Your task to perform on an android device: check data usage Image 0: 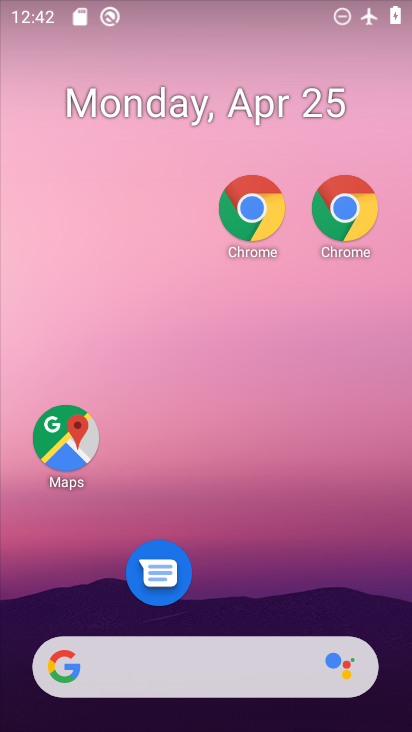
Step 0: drag from (160, 40) to (211, 17)
Your task to perform on an android device: check data usage Image 1: 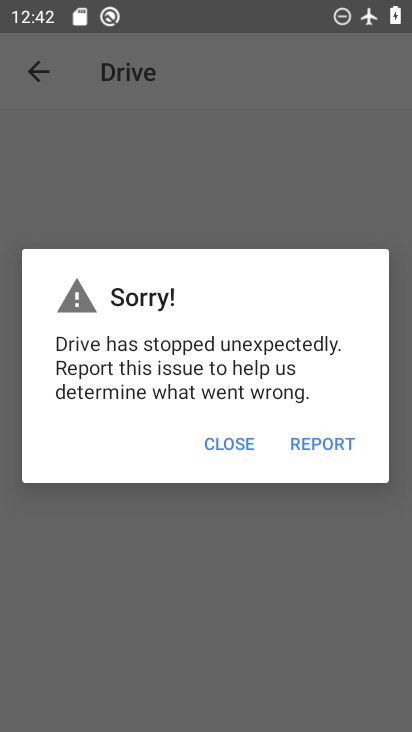
Step 1: click (219, 455)
Your task to perform on an android device: check data usage Image 2: 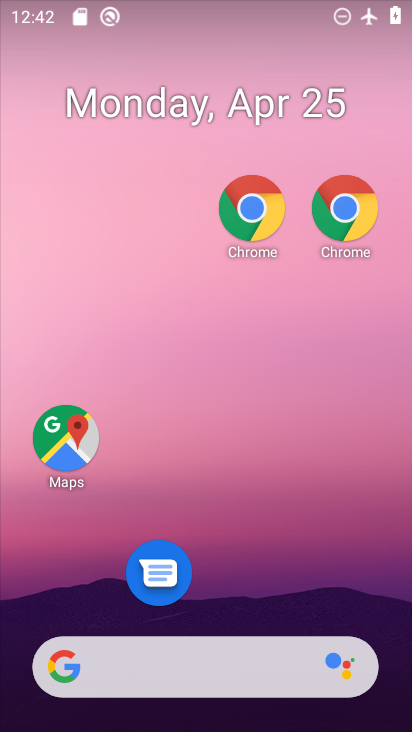
Step 2: drag from (200, 450) to (117, 0)
Your task to perform on an android device: check data usage Image 3: 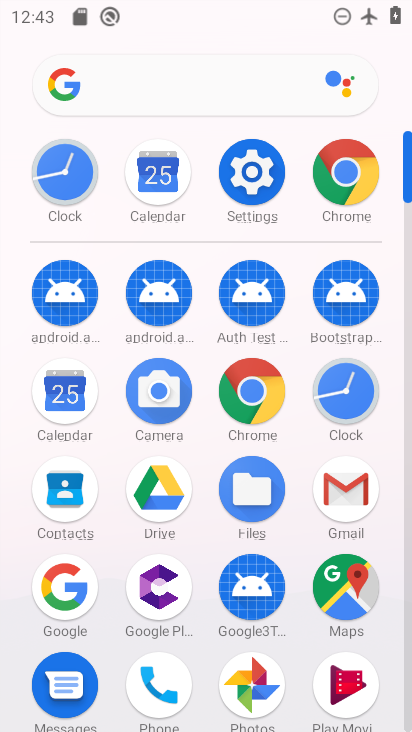
Step 3: click (249, 173)
Your task to perform on an android device: check data usage Image 4: 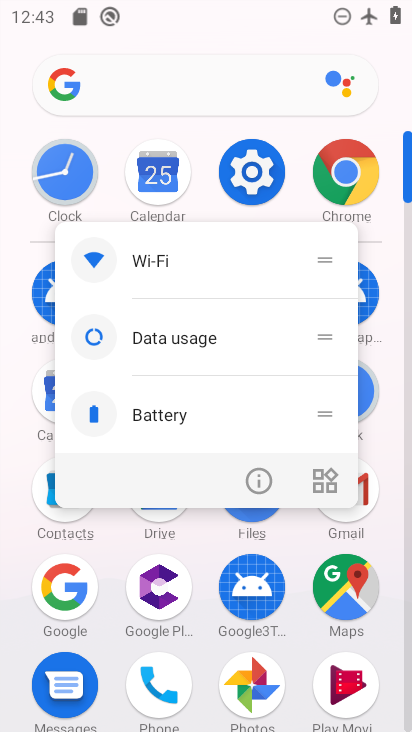
Step 4: click (249, 159)
Your task to perform on an android device: check data usage Image 5: 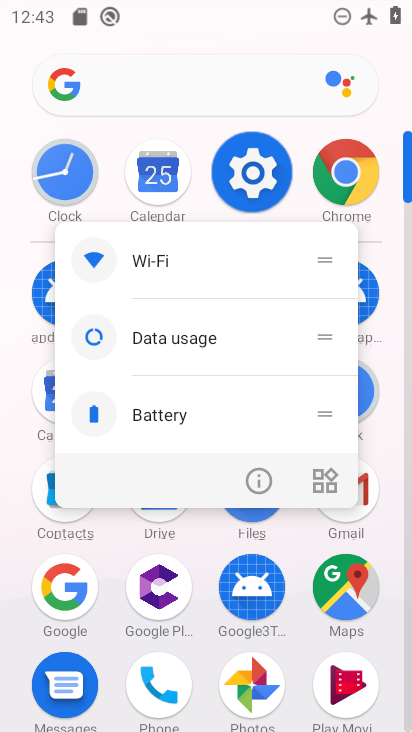
Step 5: click (249, 170)
Your task to perform on an android device: check data usage Image 6: 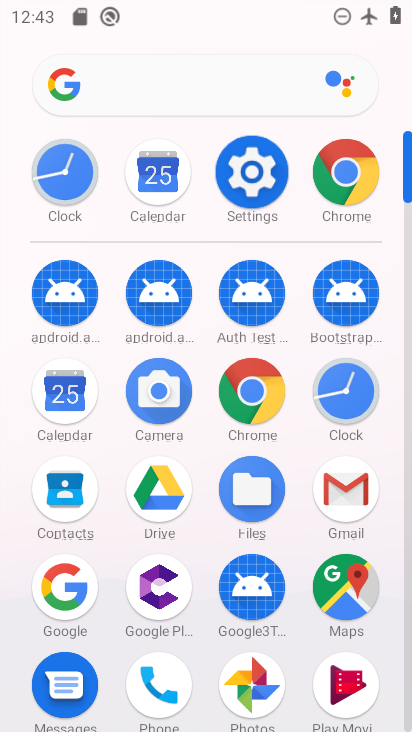
Step 6: click (247, 166)
Your task to perform on an android device: check data usage Image 7: 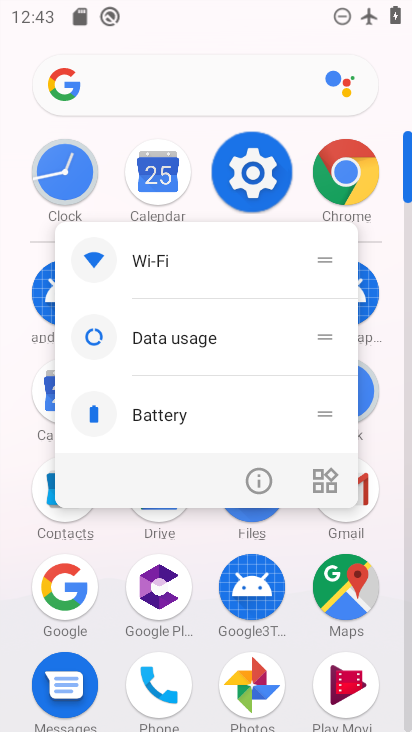
Step 7: click (245, 144)
Your task to perform on an android device: check data usage Image 8: 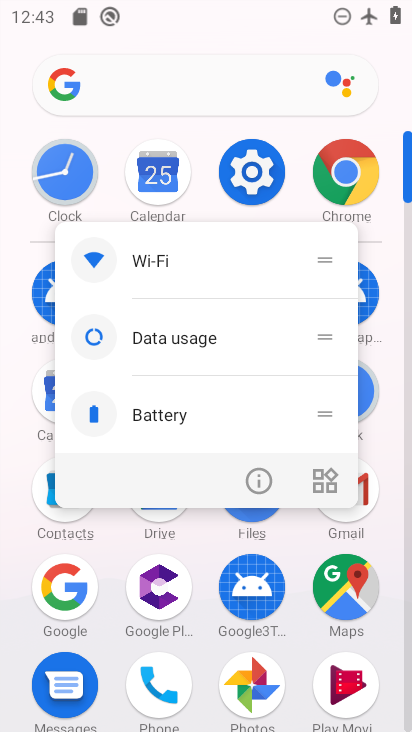
Step 8: click (245, 138)
Your task to perform on an android device: check data usage Image 9: 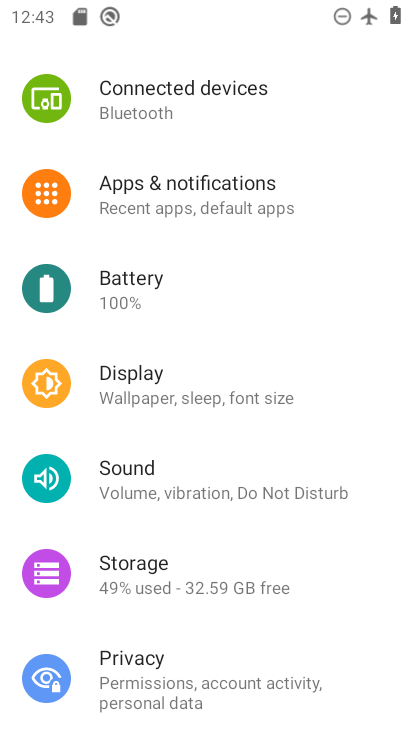
Step 9: drag from (187, 203) to (205, 609)
Your task to perform on an android device: check data usage Image 10: 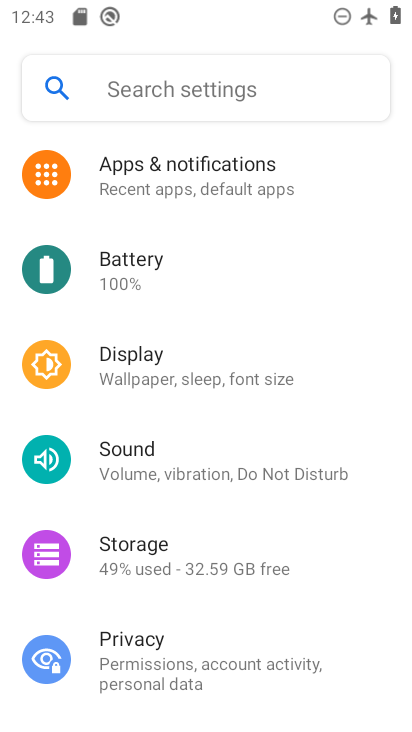
Step 10: drag from (210, 634) to (250, 694)
Your task to perform on an android device: check data usage Image 11: 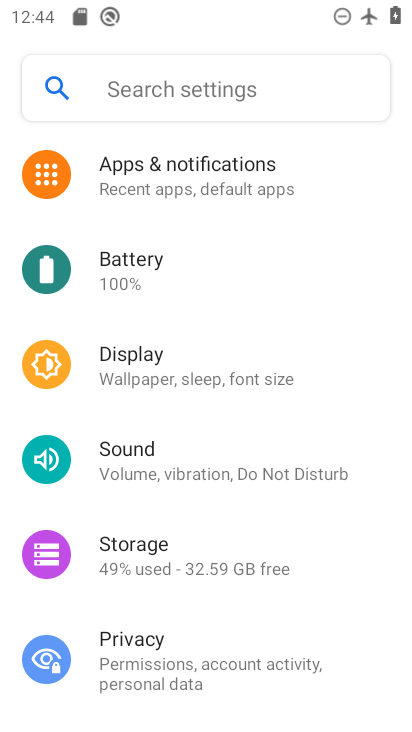
Step 11: drag from (159, 261) to (75, 510)
Your task to perform on an android device: check data usage Image 12: 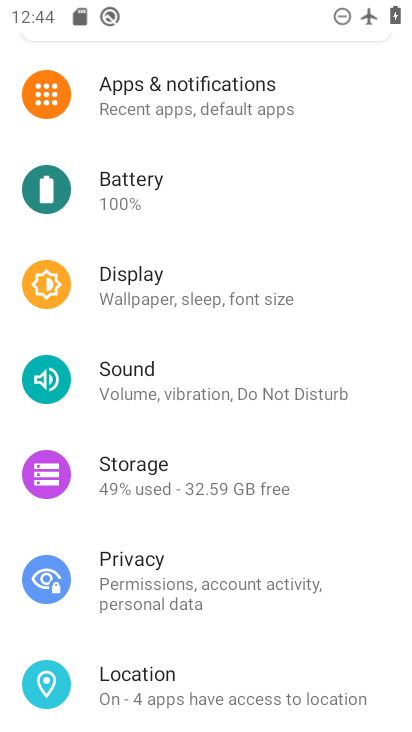
Step 12: drag from (177, 227) to (228, 613)
Your task to perform on an android device: check data usage Image 13: 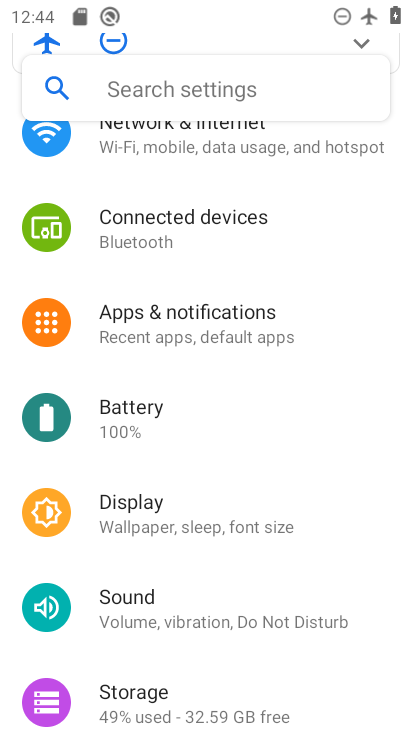
Step 13: click (185, 143)
Your task to perform on an android device: check data usage Image 14: 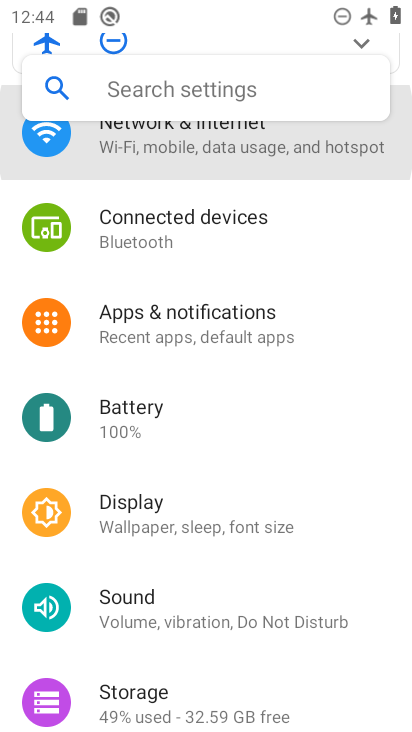
Step 14: click (186, 138)
Your task to perform on an android device: check data usage Image 15: 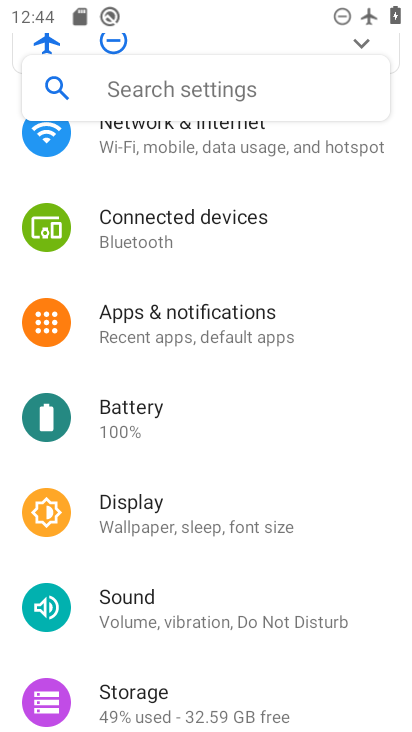
Step 15: click (186, 138)
Your task to perform on an android device: check data usage Image 16: 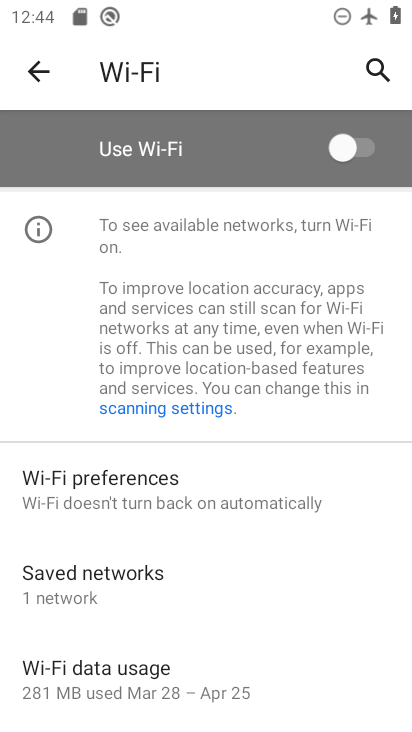
Step 16: click (35, 73)
Your task to perform on an android device: check data usage Image 17: 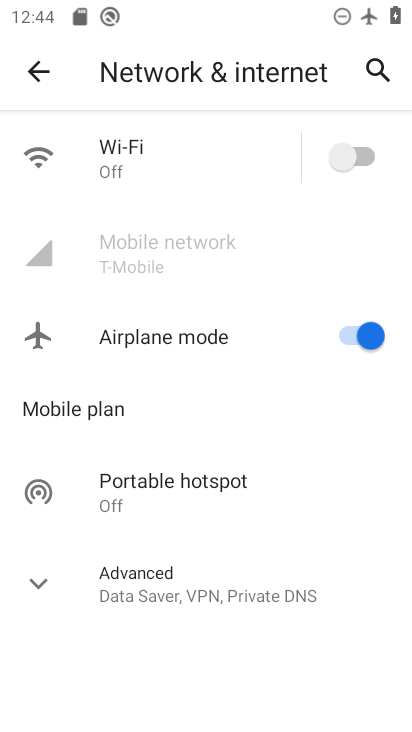
Step 17: task complete